Your task to perform on an android device: Go to ESPN.com Image 0: 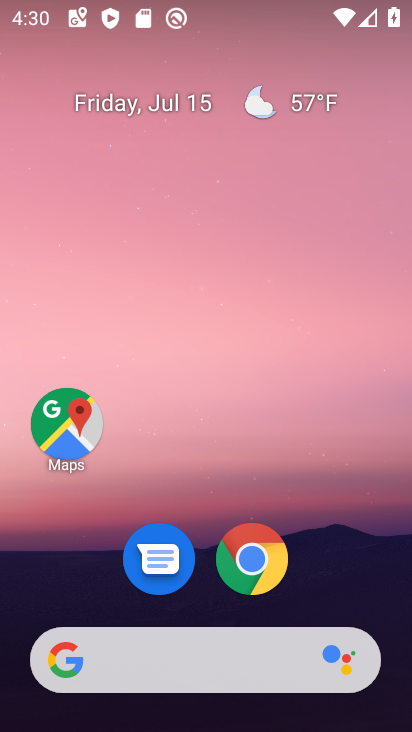
Step 0: click (275, 565)
Your task to perform on an android device: Go to ESPN.com Image 1: 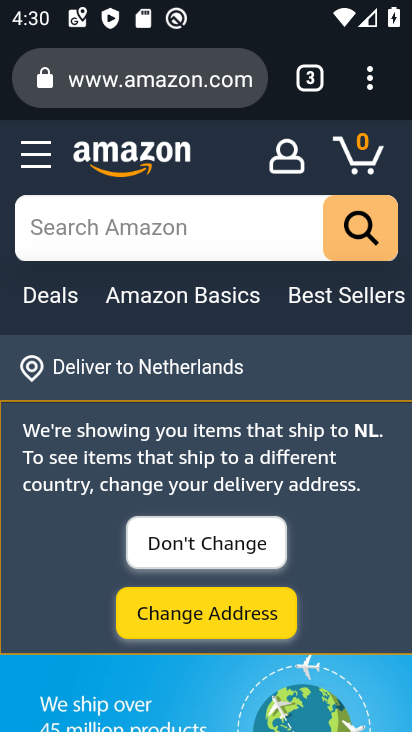
Step 1: click (301, 88)
Your task to perform on an android device: Go to ESPN.com Image 2: 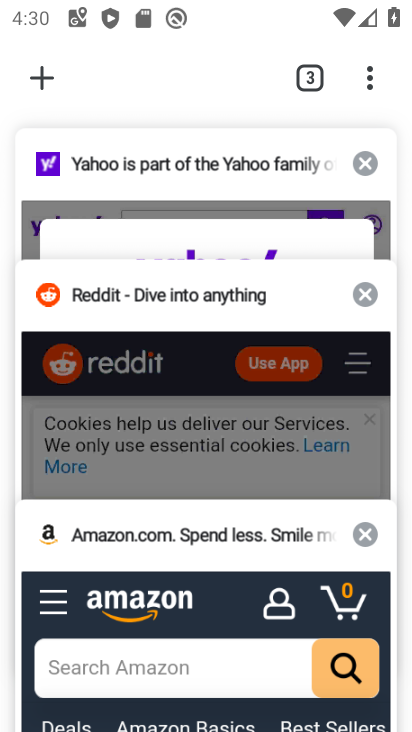
Step 2: click (42, 67)
Your task to perform on an android device: Go to ESPN.com Image 3: 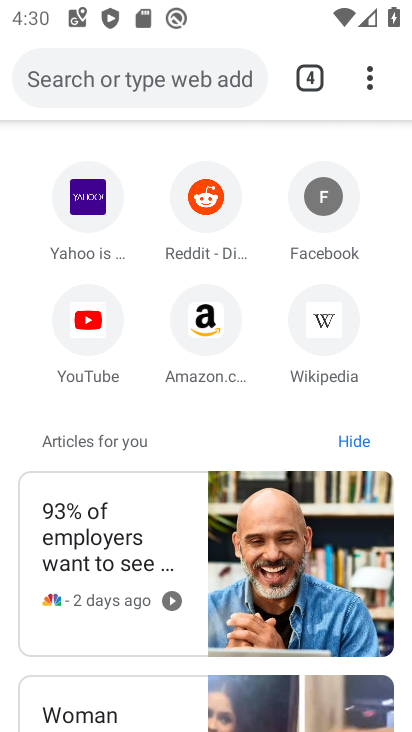
Step 3: click (133, 83)
Your task to perform on an android device: Go to ESPN.com Image 4: 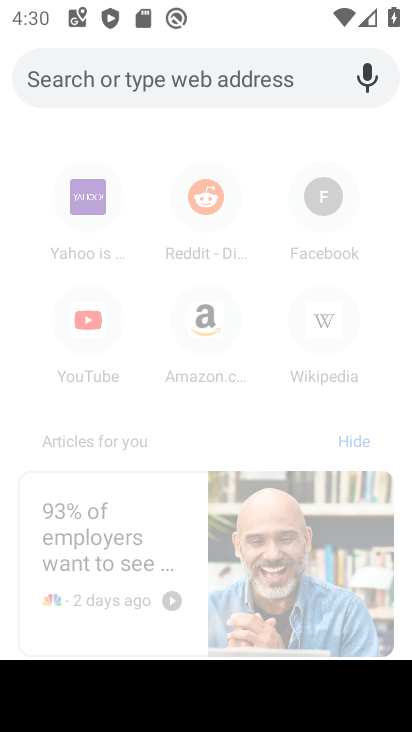
Step 4: type "espn.com"
Your task to perform on an android device: Go to ESPN.com Image 5: 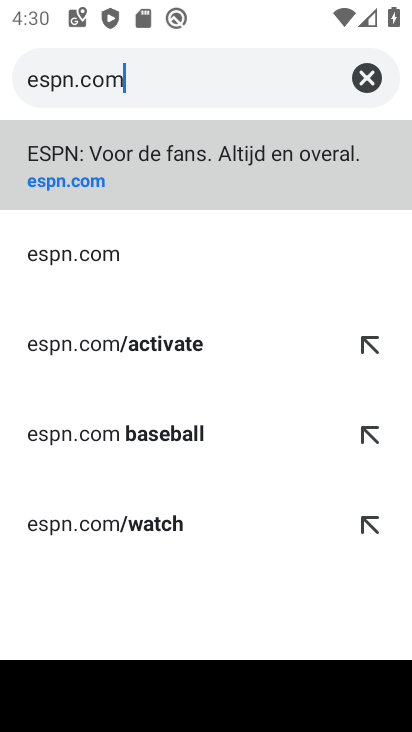
Step 5: click (120, 153)
Your task to perform on an android device: Go to ESPN.com Image 6: 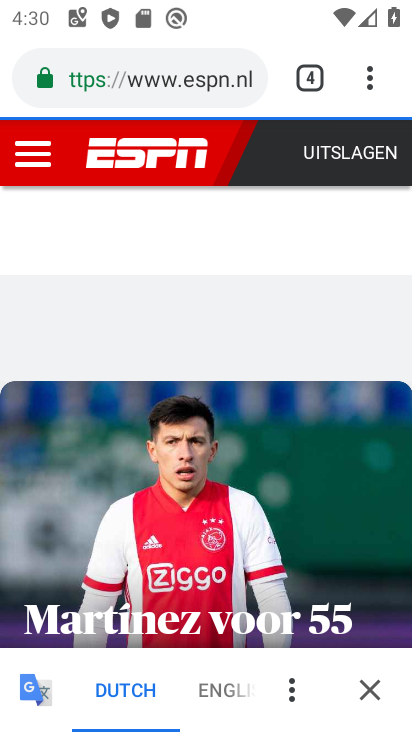
Step 6: task complete